Your task to perform on an android device: Search for the top rated book on goodreads. Image 0: 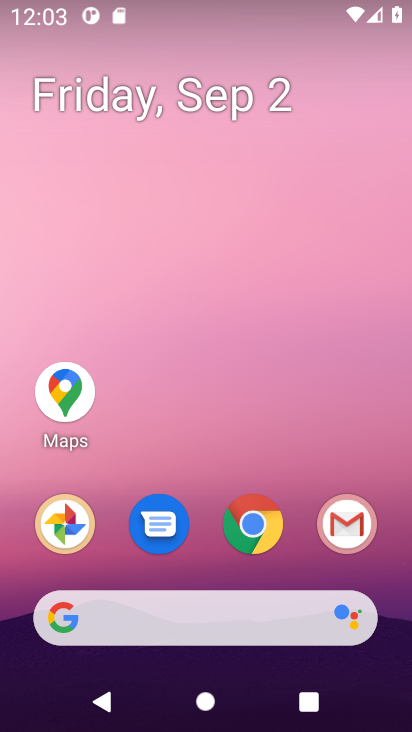
Step 0: click (269, 624)
Your task to perform on an android device: Search for the top rated book on goodreads. Image 1: 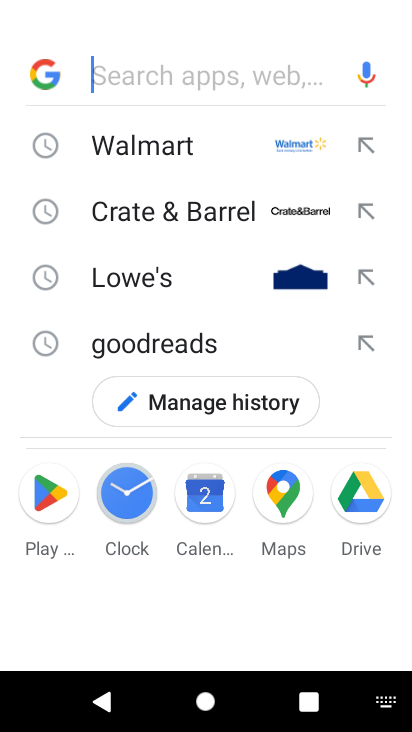
Step 1: click (214, 337)
Your task to perform on an android device: Search for the top rated book on goodreads. Image 2: 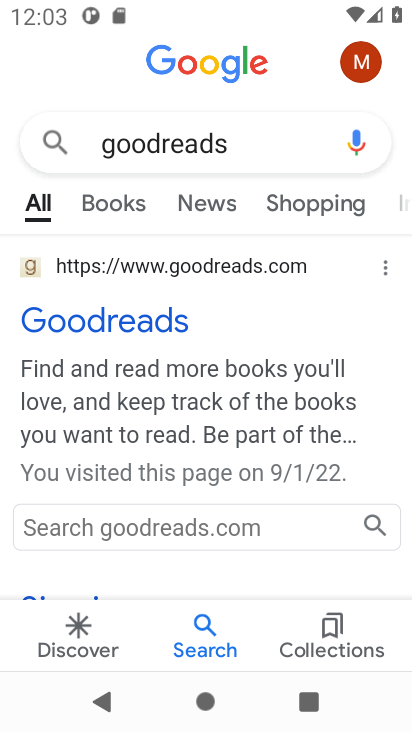
Step 2: click (130, 321)
Your task to perform on an android device: Search for the top rated book on goodreads. Image 3: 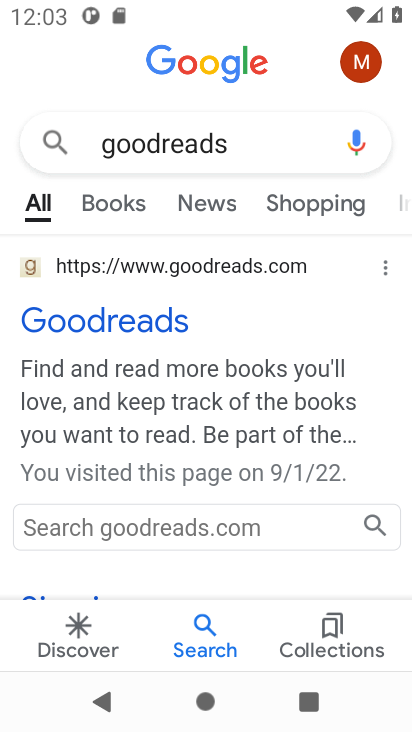
Step 3: click (164, 319)
Your task to perform on an android device: Search for the top rated book on goodreads. Image 4: 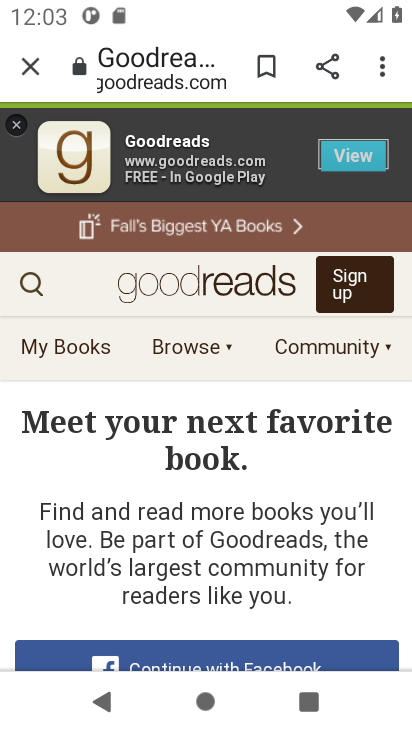
Step 4: click (56, 285)
Your task to perform on an android device: Search for the top rated book on goodreads. Image 5: 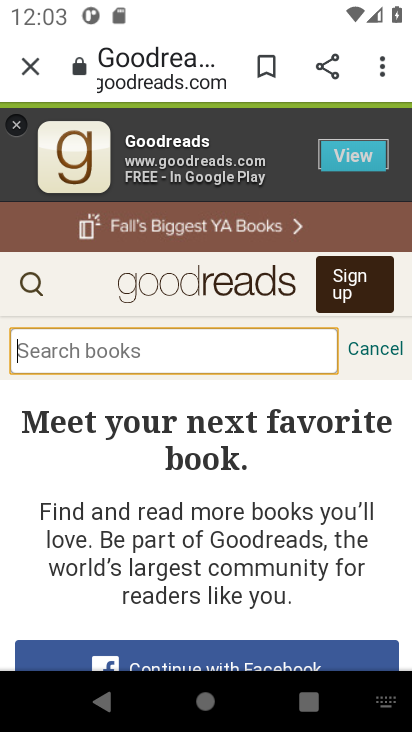
Step 5: press enter
Your task to perform on an android device: Search for the top rated book on goodreads. Image 6: 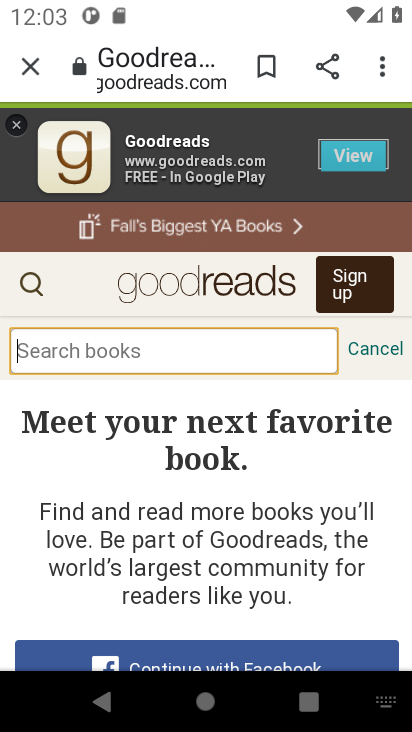
Step 6: type "top rated book"
Your task to perform on an android device: Search for the top rated book on goodreads. Image 7: 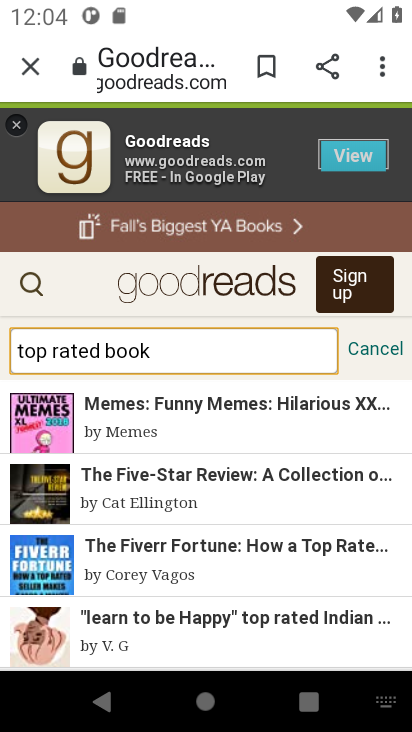
Step 7: task complete